Your task to perform on an android device: read, delete, or share a saved page in the chrome app Image 0: 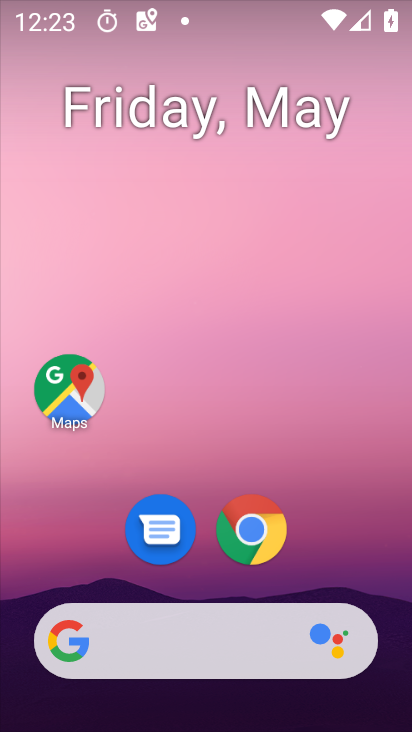
Step 0: drag from (190, 540) to (228, 104)
Your task to perform on an android device: read, delete, or share a saved page in the chrome app Image 1: 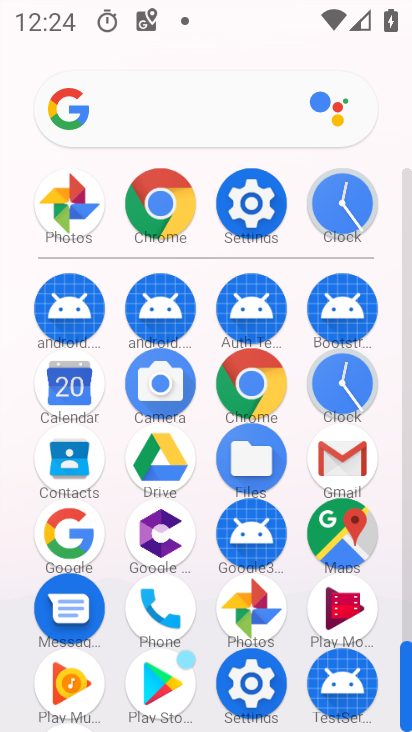
Step 1: click (145, 217)
Your task to perform on an android device: read, delete, or share a saved page in the chrome app Image 2: 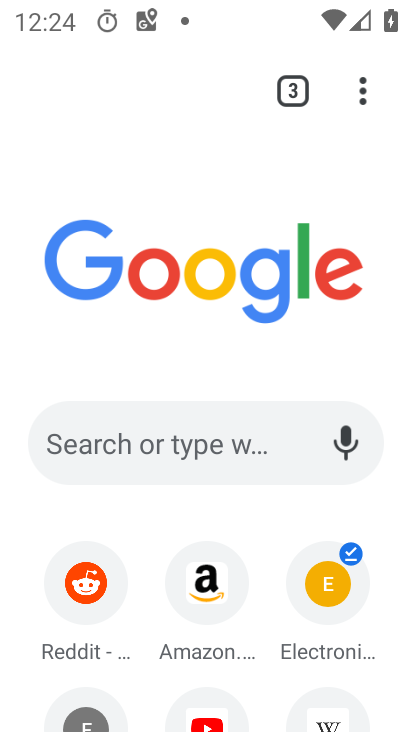
Step 2: click (367, 93)
Your task to perform on an android device: read, delete, or share a saved page in the chrome app Image 3: 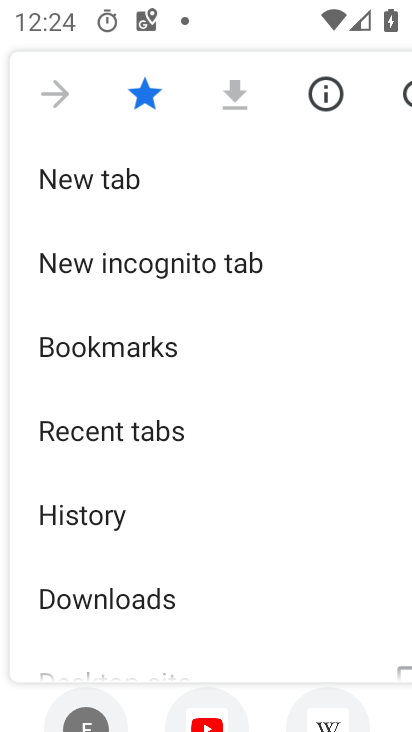
Step 3: drag from (202, 532) to (207, 478)
Your task to perform on an android device: read, delete, or share a saved page in the chrome app Image 4: 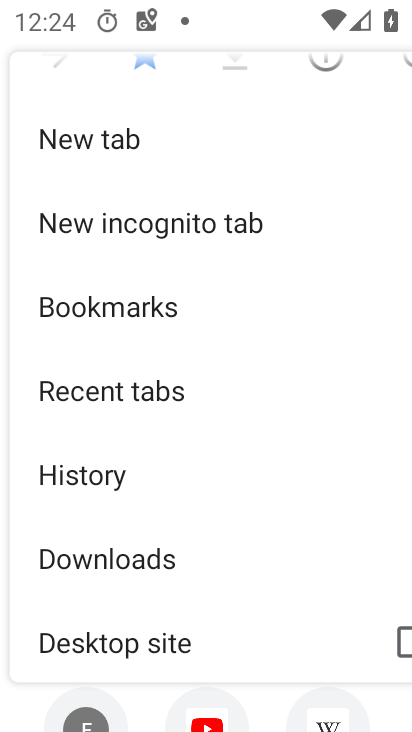
Step 4: click (128, 571)
Your task to perform on an android device: read, delete, or share a saved page in the chrome app Image 5: 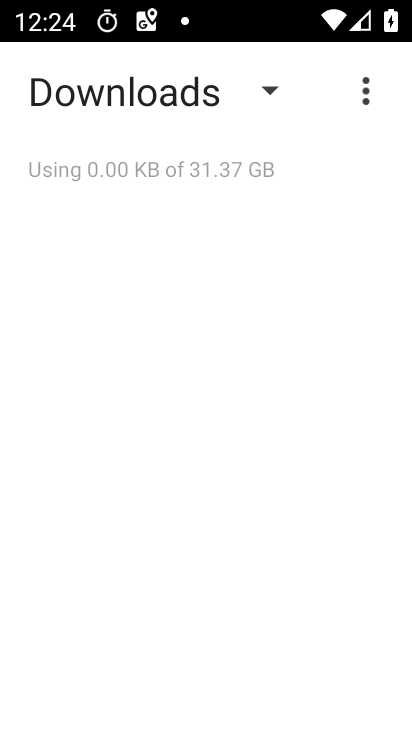
Step 5: click (262, 98)
Your task to perform on an android device: read, delete, or share a saved page in the chrome app Image 6: 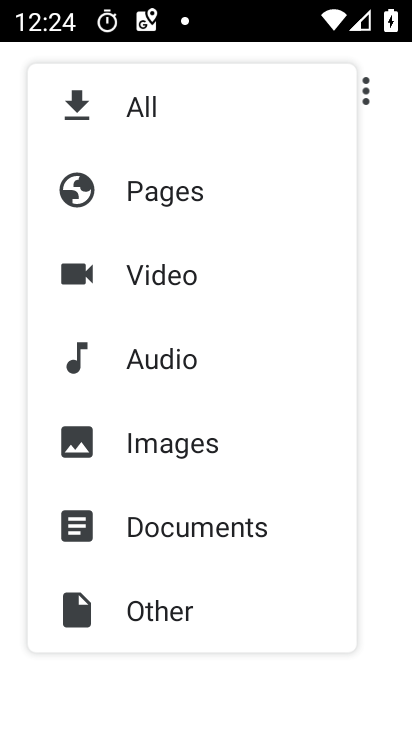
Step 6: click (188, 194)
Your task to perform on an android device: read, delete, or share a saved page in the chrome app Image 7: 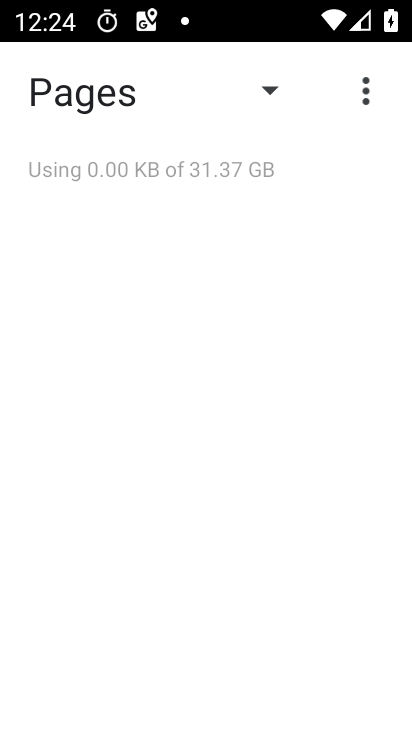
Step 7: task complete